Your task to perform on an android device: Go to Amazon Image 0: 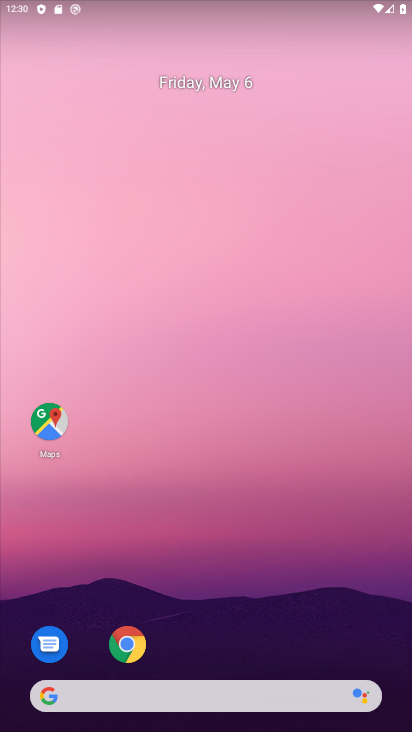
Step 0: click (240, 699)
Your task to perform on an android device: Go to Amazon Image 1: 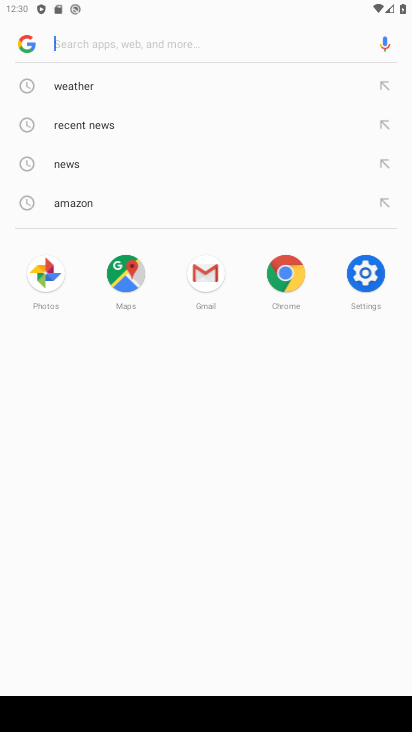
Step 1: click (101, 210)
Your task to perform on an android device: Go to Amazon Image 2: 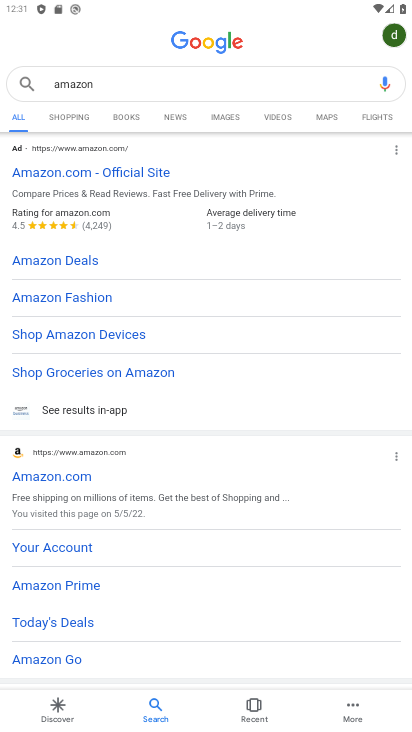
Step 2: task complete